Your task to perform on an android device: What's the weather today? Image 0: 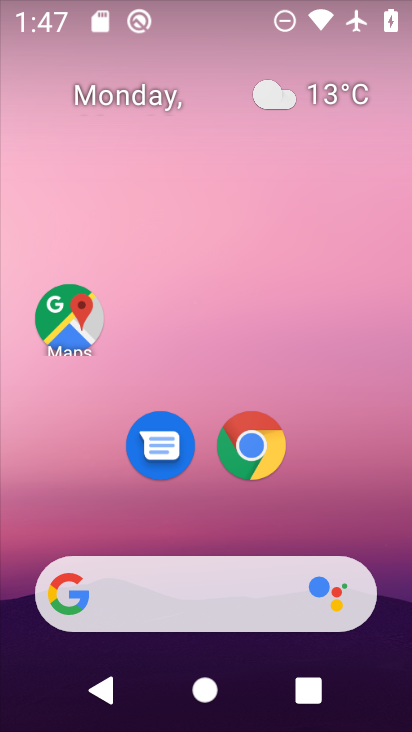
Step 0: drag from (395, 618) to (398, 572)
Your task to perform on an android device: What's the weather today? Image 1: 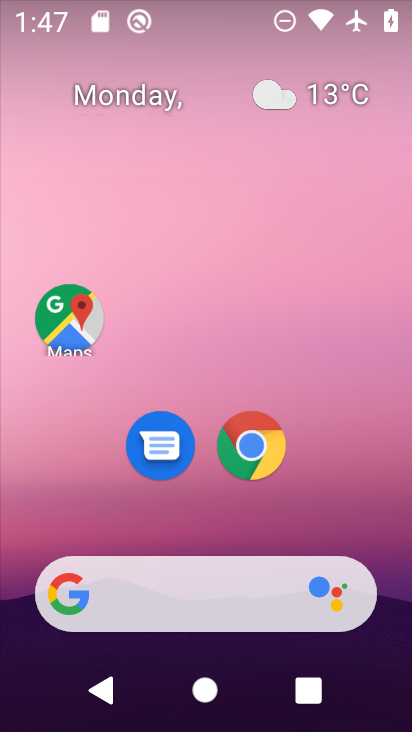
Step 1: drag from (381, 623) to (258, 19)
Your task to perform on an android device: What's the weather today? Image 2: 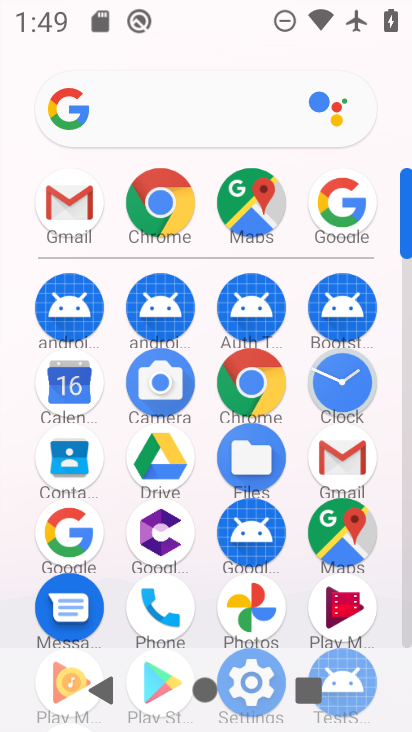
Step 2: click (86, 518)
Your task to perform on an android device: What's the weather today? Image 3: 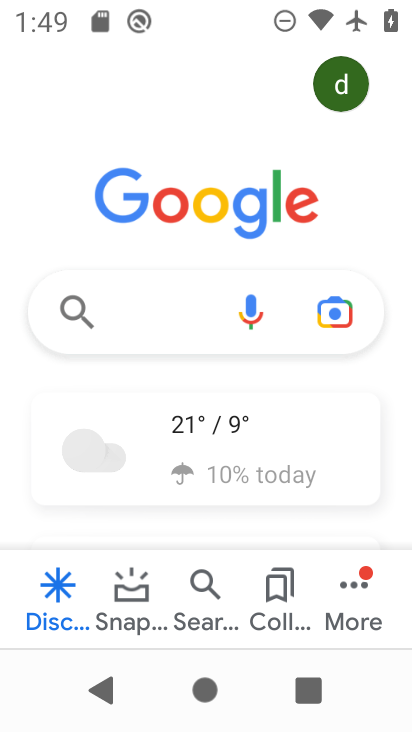
Step 3: click (170, 322)
Your task to perform on an android device: What's the weather today? Image 4: 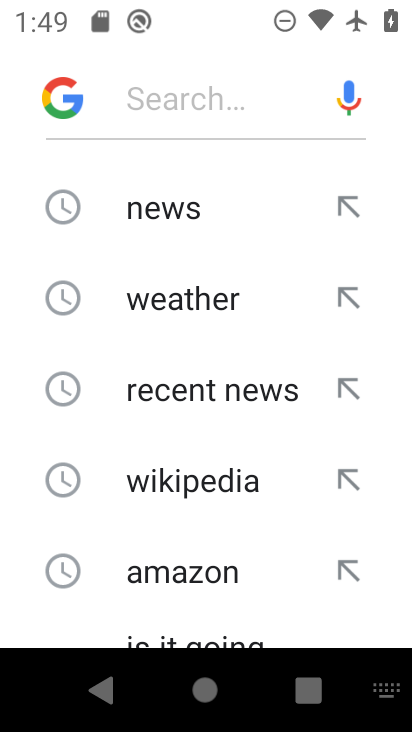
Step 4: drag from (194, 544) to (266, 123)
Your task to perform on an android device: What's the weather today? Image 5: 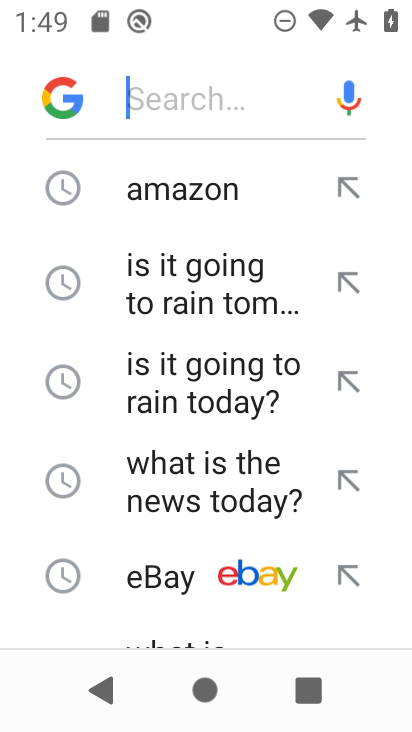
Step 5: drag from (211, 498) to (264, 161)
Your task to perform on an android device: What's the weather today? Image 6: 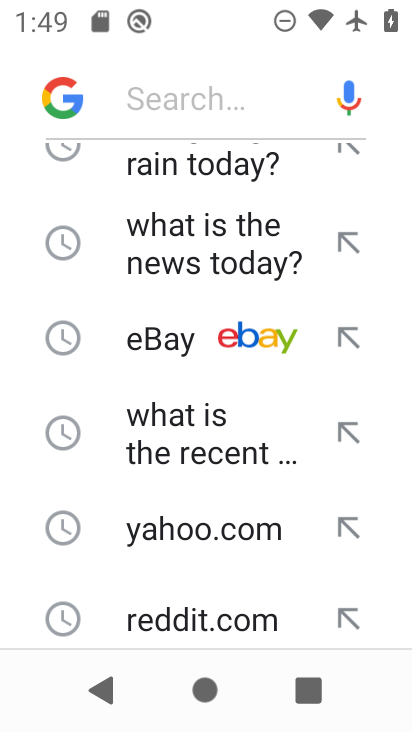
Step 6: drag from (213, 538) to (251, 206)
Your task to perform on an android device: What's the weather today? Image 7: 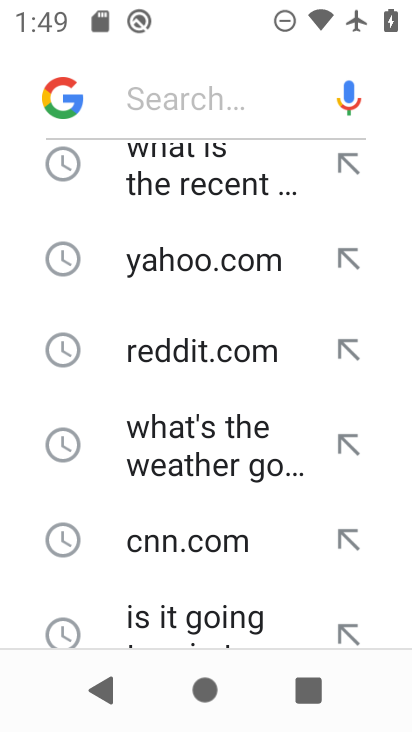
Step 7: click (228, 446)
Your task to perform on an android device: What's the weather today? Image 8: 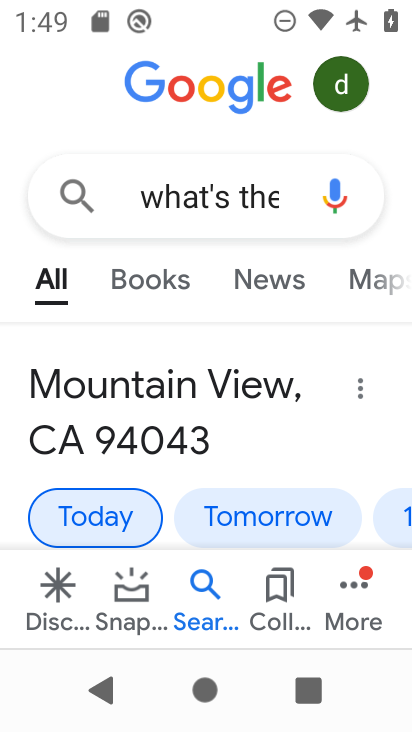
Step 8: task complete